Your task to perform on an android device: check the backup settings in the google photos Image 0: 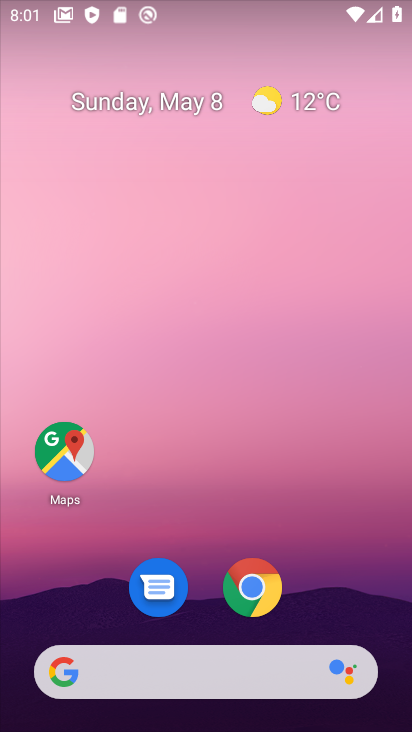
Step 0: drag from (345, 595) to (295, 61)
Your task to perform on an android device: check the backup settings in the google photos Image 1: 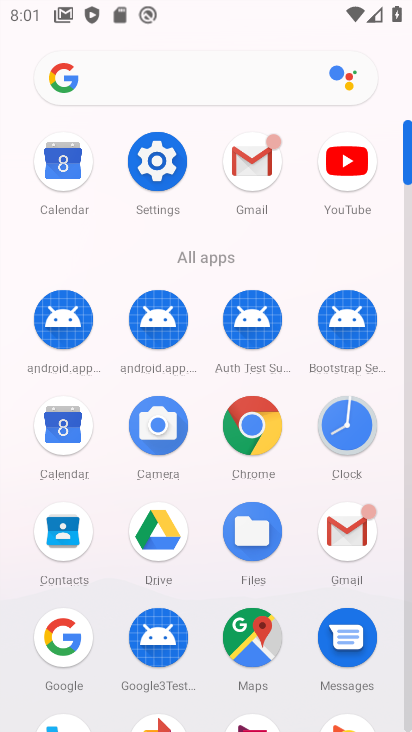
Step 1: drag from (262, 569) to (309, 165)
Your task to perform on an android device: check the backup settings in the google photos Image 2: 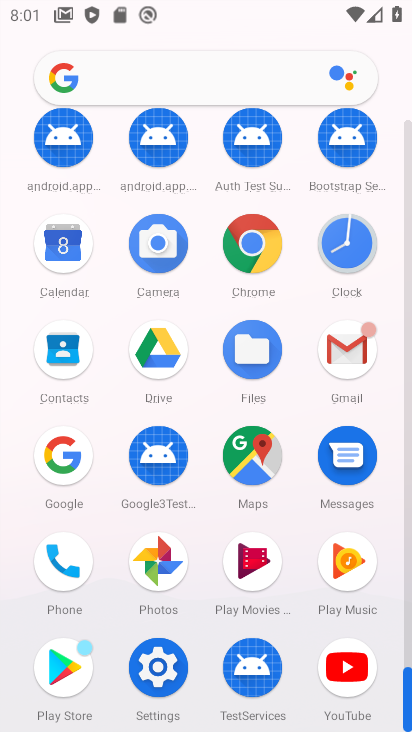
Step 2: click (161, 572)
Your task to perform on an android device: check the backup settings in the google photos Image 3: 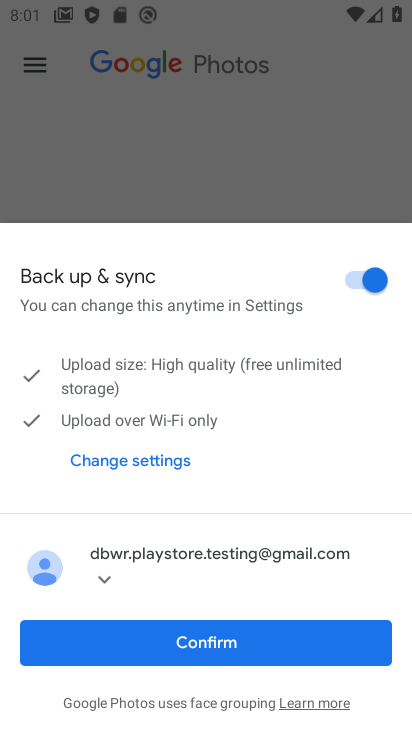
Step 3: click (201, 637)
Your task to perform on an android device: check the backup settings in the google photos Image 4: 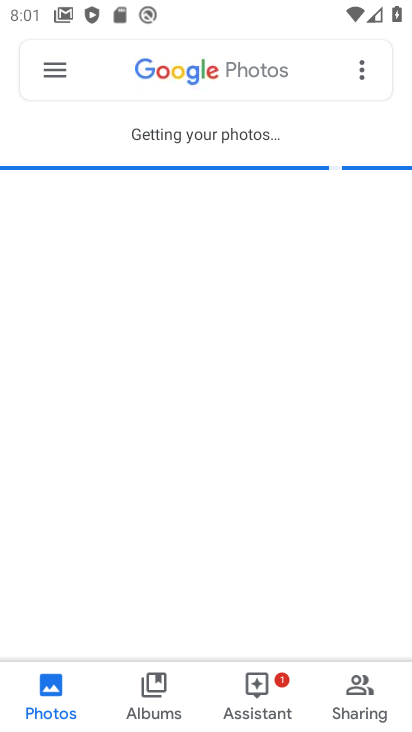
Step 4: click (53, 63)
Your task to perform on an android device: check the backup settings in the google photos Image 5: 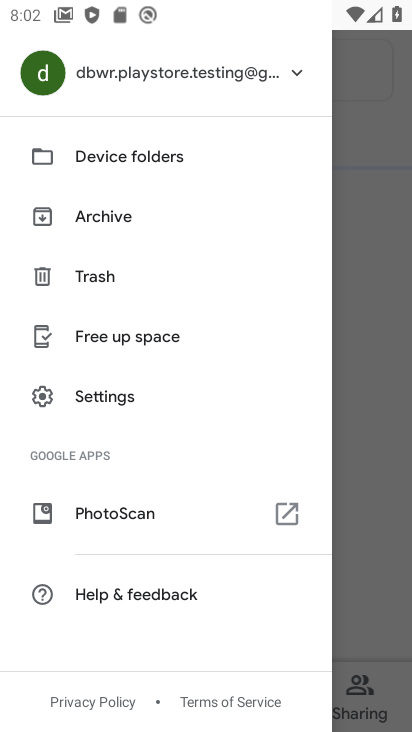
Step 5: click (152, 399)
Your task to perform on an android device: check the backup settings in the google photos Image 6: 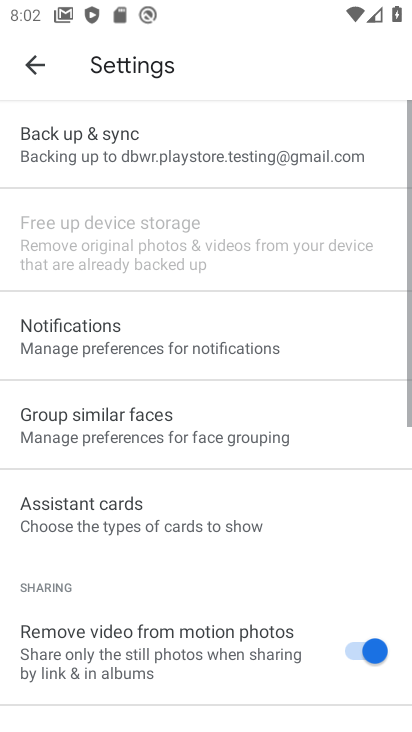
Step 6: click (234, 143)
Your task to perform on an android device: check the backup settings in the google photos Image 7: 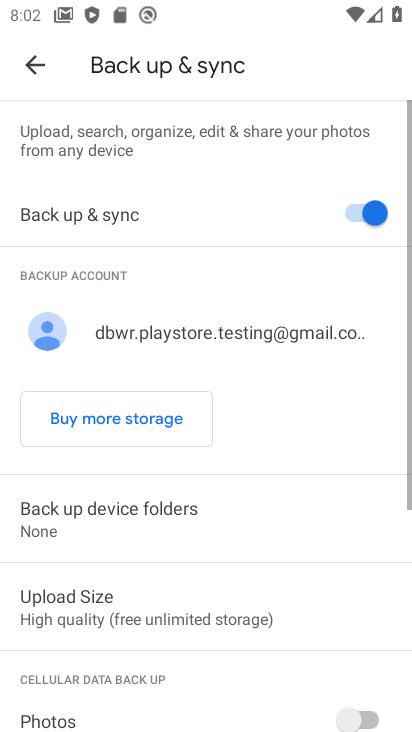
Step 7: task complete